Your task to perform on an android device: Open settings Image 0: 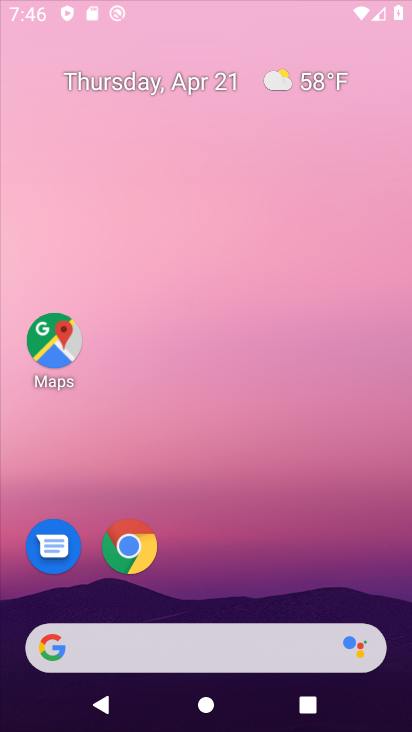
Step 0: click (283, 147)
Your task to perform on an android device: Open settings Image 1: 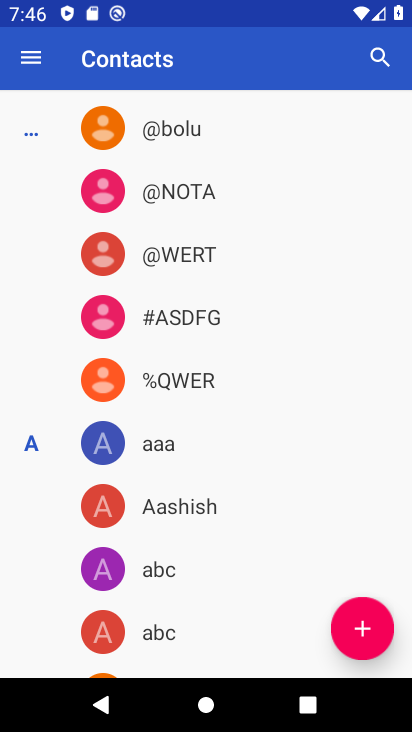
Step 1: press home button
Your task to perform on an android device: Open settings Image 2: 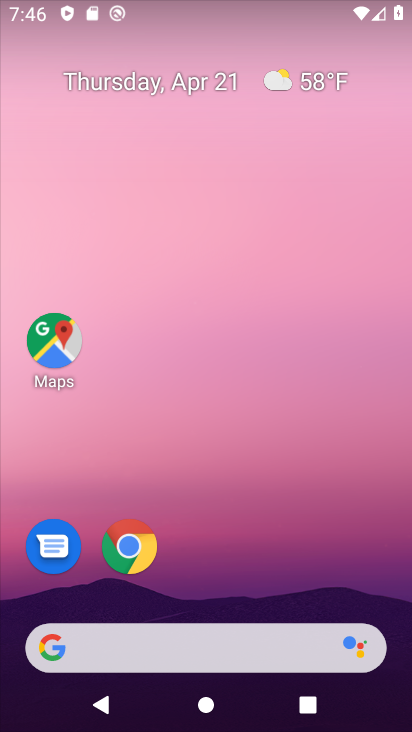
Step 2: drag from (322, 350) to (265, 53)
Your task to perform on an android device: Open settings Image 3: 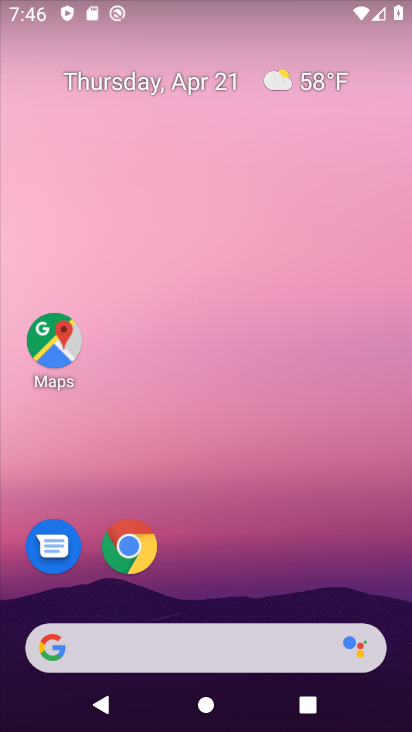
Step 3: drag from (293, 435) to (327, 11)
Your task to perform on an android device: Open settings Image 4: 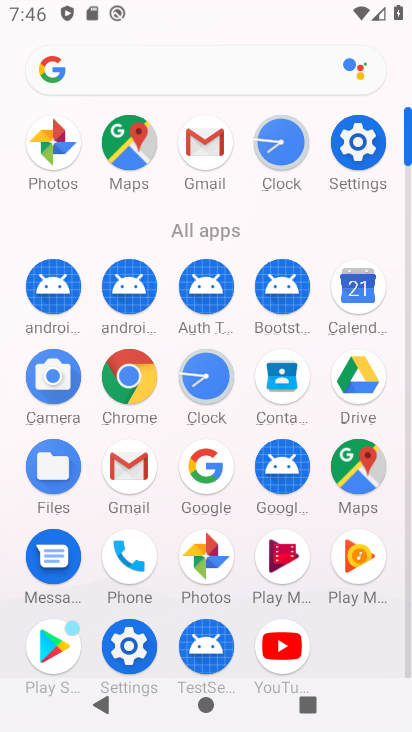
Step 4: click (362, 139)
Your task to perform on an android device: Open settings Image 5: 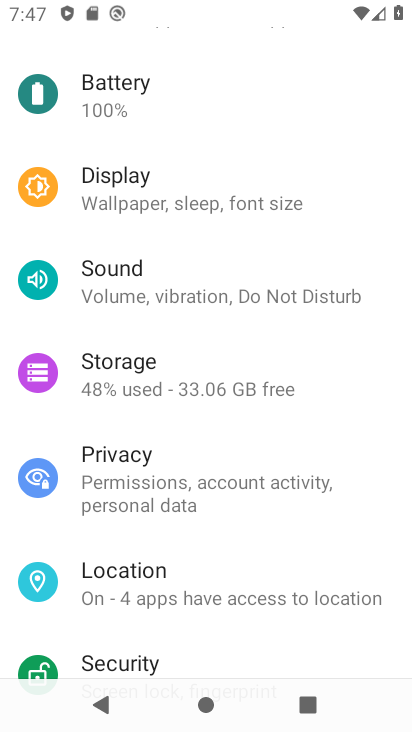
Step 5: task complete